Your task to perform on an android device: toggle notification dots Image 0: 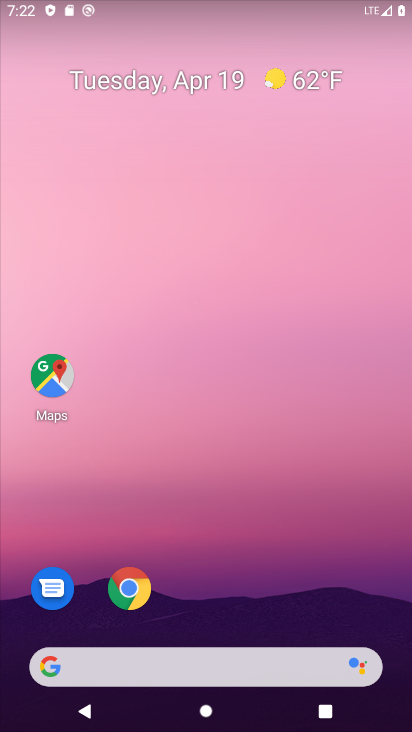
Step 0: drag from (228, 587) to (201, 44)
Your task to perform on an android device: toggle notification dots Image 1: 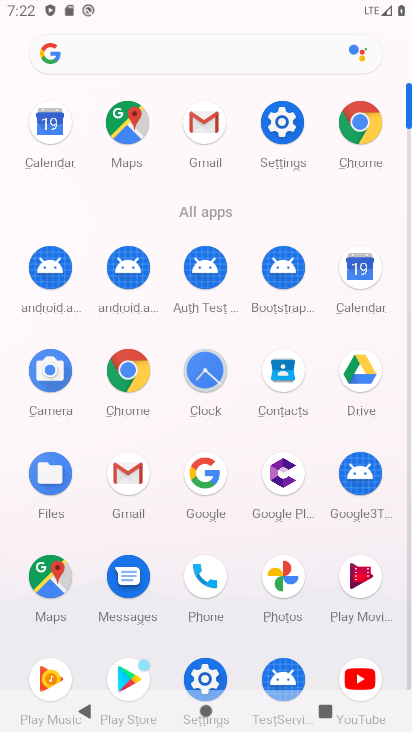
Step 1: click (281, 124)
Your task to perform on an android device: toggle notification dots Image 2: 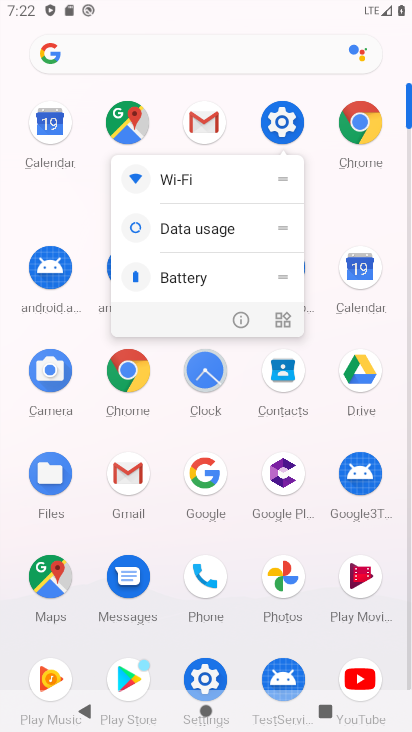
Step 2: click (281, 124)
Your task to perform on an android device: toggle notification dots Image 3: 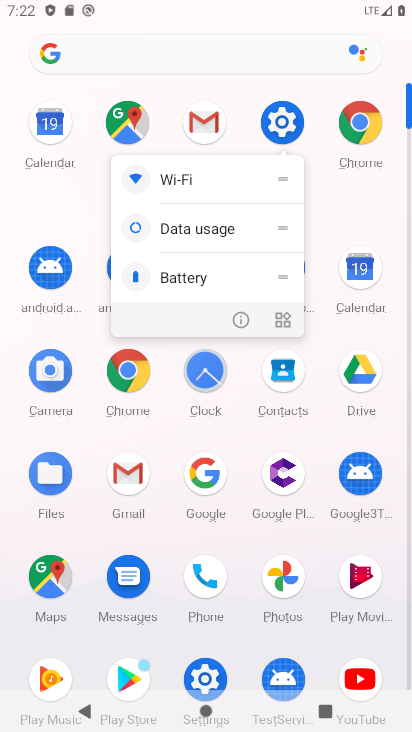
Step 3: click (281, 124)
Your task to perform on an android device: toggle notification dots Image 4: 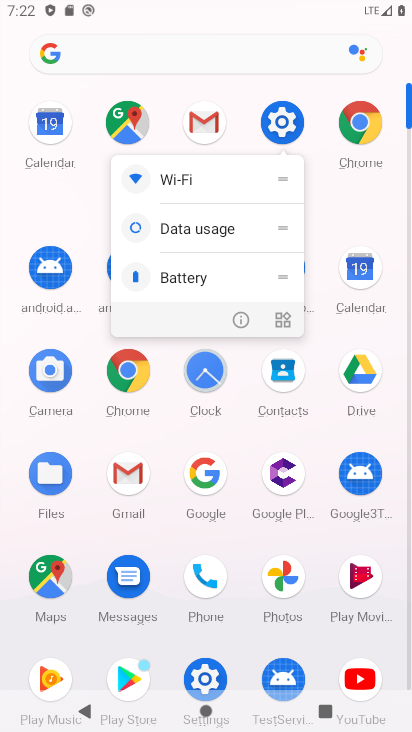
Step 4: click (281, 124)
Your task to perform on an android device: toggle notification dots Image 5: 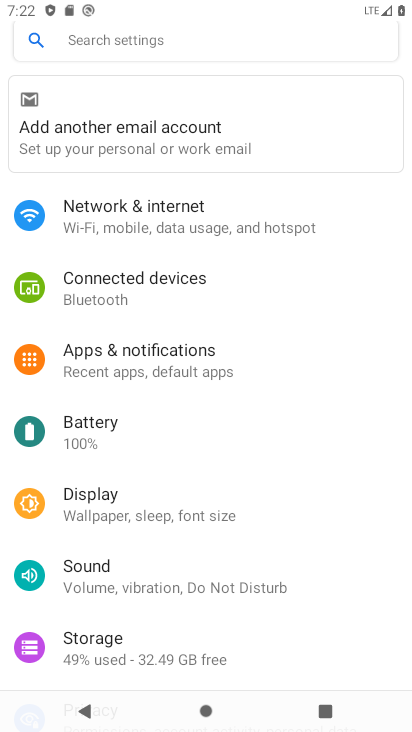
Step 5: click (142, 354)
Your task to perform on an android device: toggle notification dots Image 6: 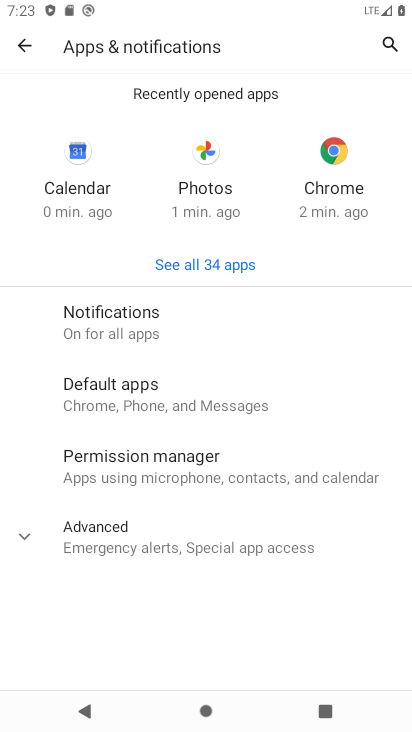
Step 6: click (97, 311)
Your task to perform on an android device: toggle notification dots Image 7: 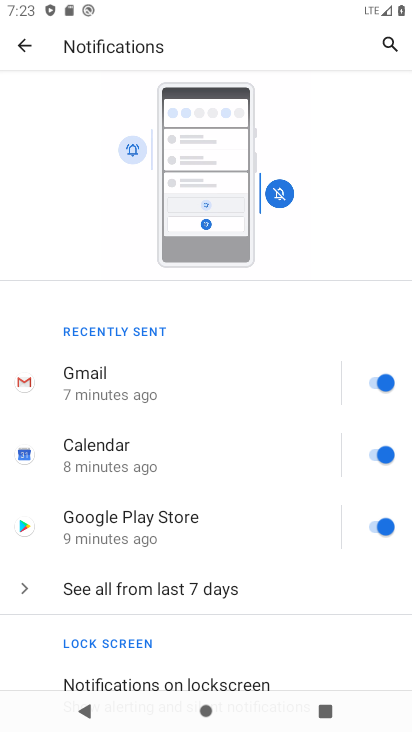
Step 7: drag from (275, 646) to (336, 208)
Your task to perform on an android device: toggle notification dots Image 8: 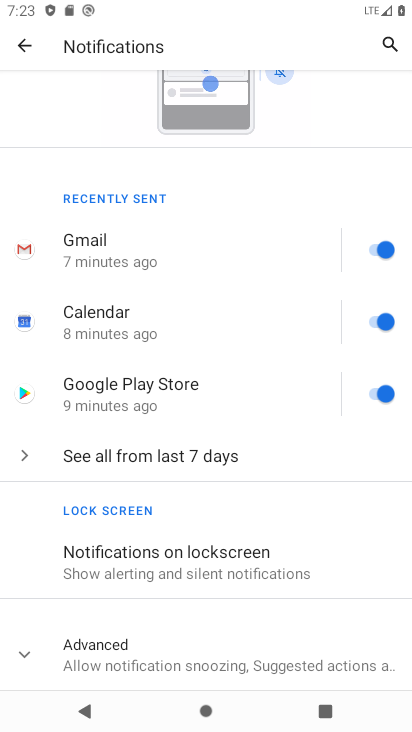
Step 8: click (21, 656)
Your task to perform on an android device: toggle notification dots Image 9: 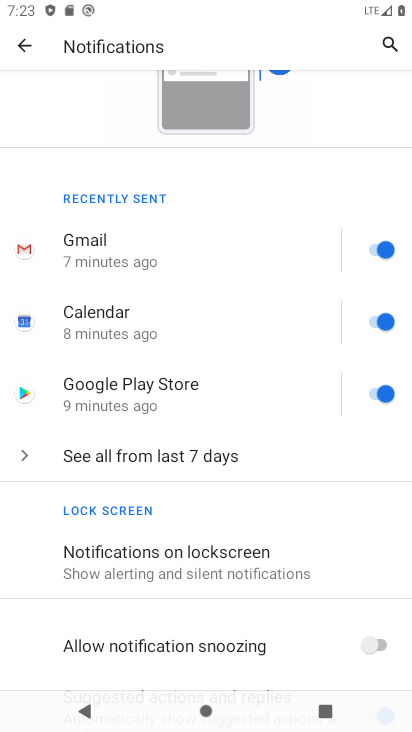
Step 9: drag from (282, 582) to (275, 123)
Your task to perform on an android device: toggle notification dots Image 10: 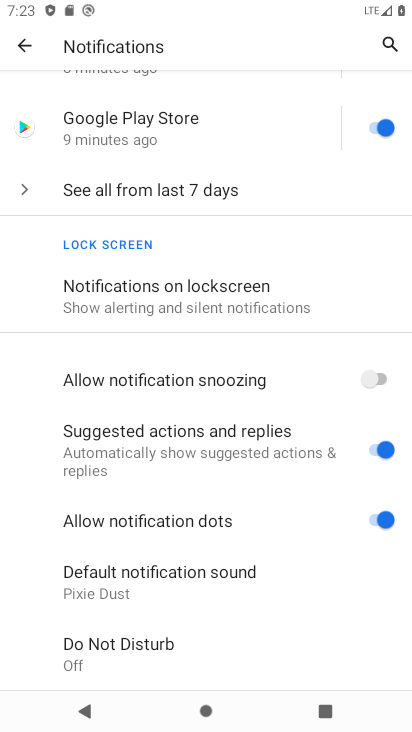
Step 10: click (391, 518)
Your task to perform on an android device: toggle notification dots Image 11: 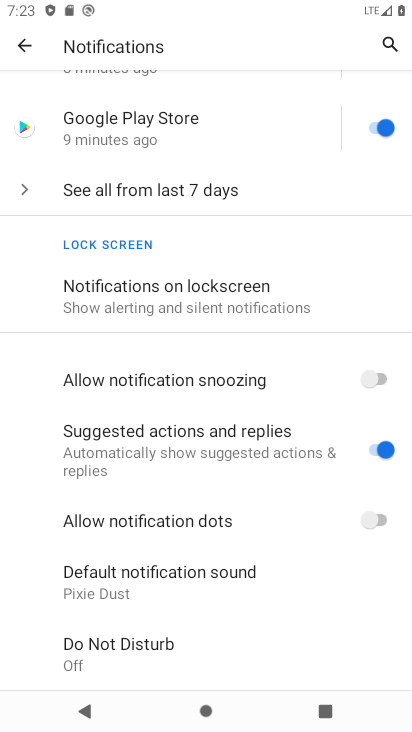
Step 11: task complete